Your task to perform on an android device: Search for Mexican restaurants on Maps Image 0: 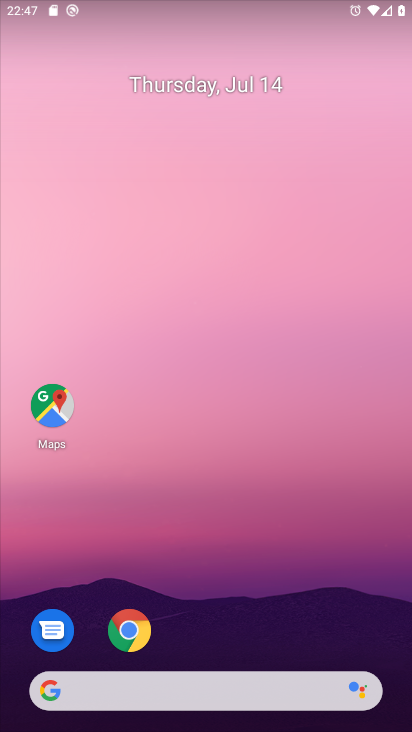
Step 0: drag from (181, 620) to (343, 125)
Your task to perform on an android device: Search for Mexican restaurants on Maps Image 1: 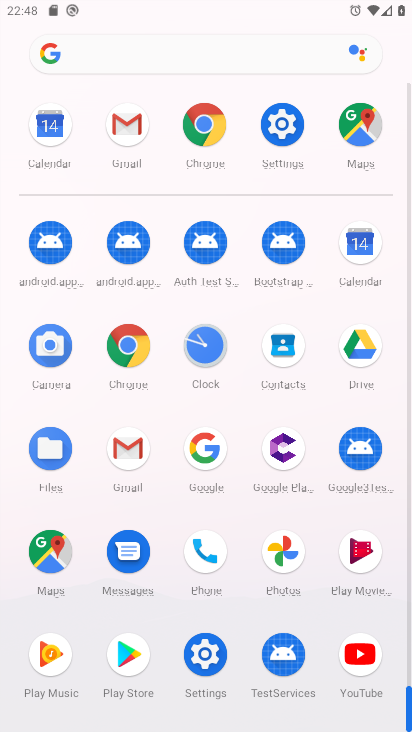
Step 1: click (34, 551)
Your task to perform on an android device: Search for Mexican restaurants on Maps Image 2: 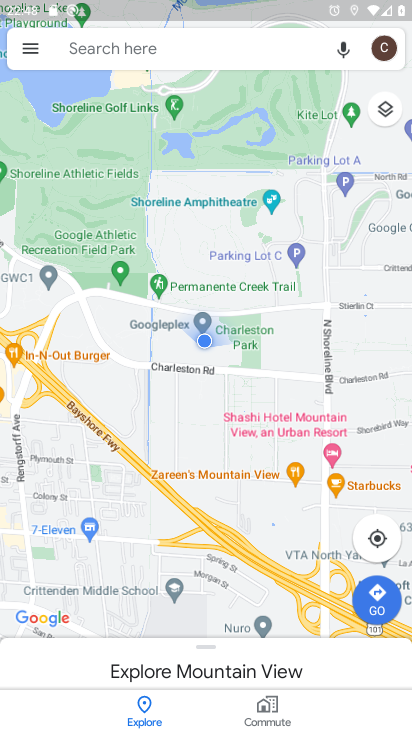
Step 2: click (87, 59)
Your task to perform on an android device: Search for Mexican restaurants on Maps Image 3: 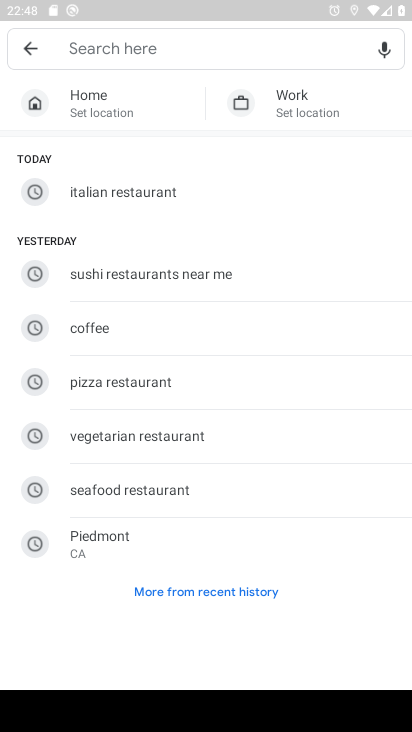
Step 3: type "Mexican restaurants"
Your task to perform on an android device: Search for Mexican restaurants on Maps Image 4: 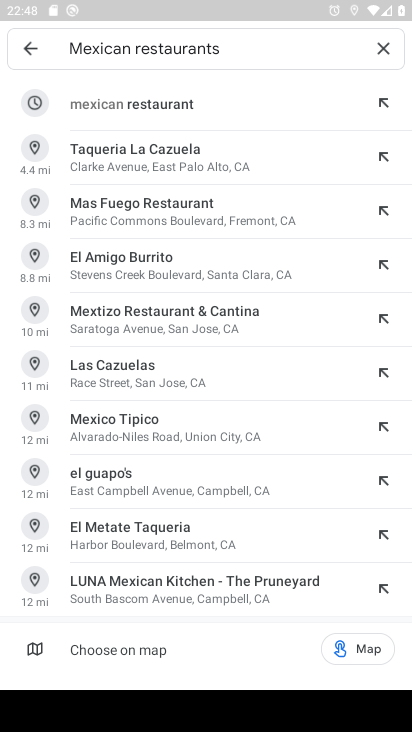
Step 4: click (115, 116)
Your task to perform on an android device: Search for Mexican restaurants on Maps Image 5: 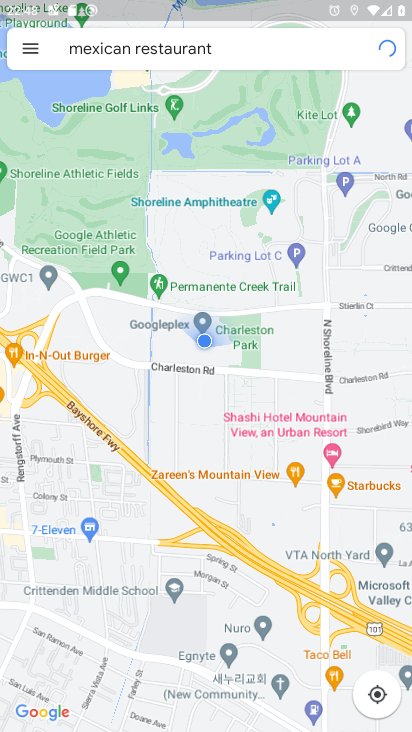
Step 5: task complete